Your task to perform on an android device: manage bookmarks in the chrome app Image 0: 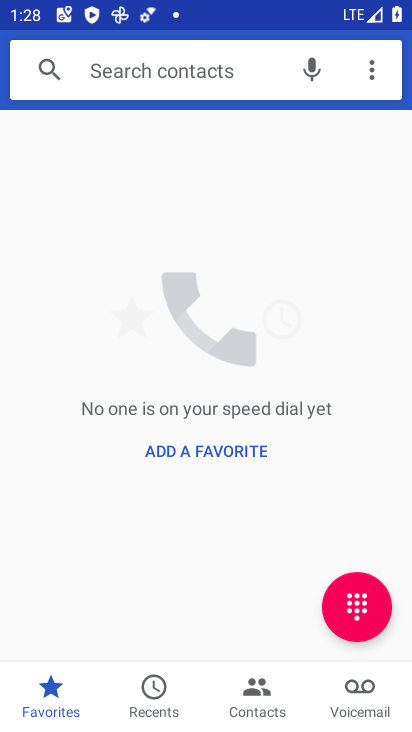
Step 0: press home button
Your task to perform on an android device: manage bookmarks in the chrome app Image 1: 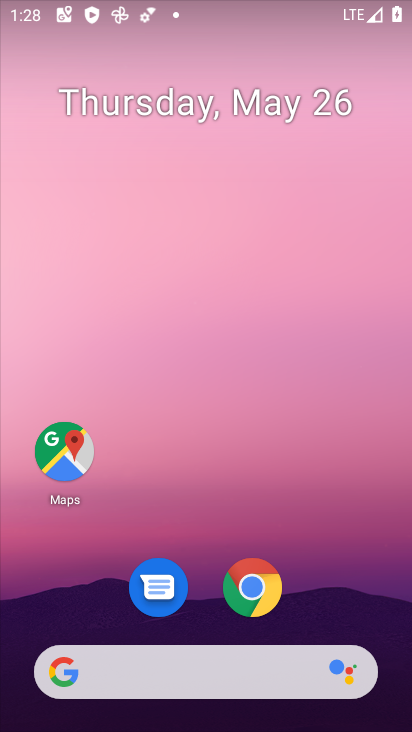
Step 1: drag from (367, 612) to (384, 181)
Your task to perform on an android device: manage bookmarks in the chrome app Image 2: 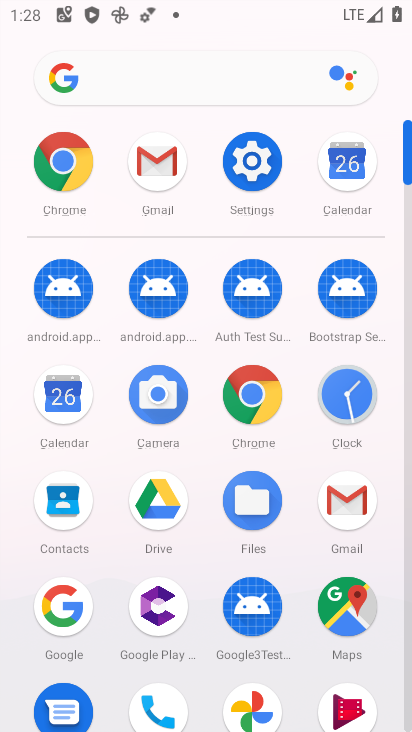
Step 2: click (254, 419)
Your task to perform on an android device: manage bookmarks in the chrome app Image 3: 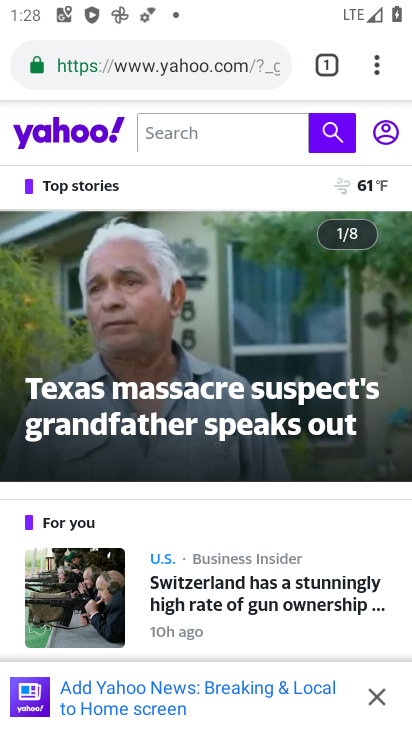
Step 3: click (376, 75)
Your task to perform on an android device: manage bookmarks in the chrome app Image 4: 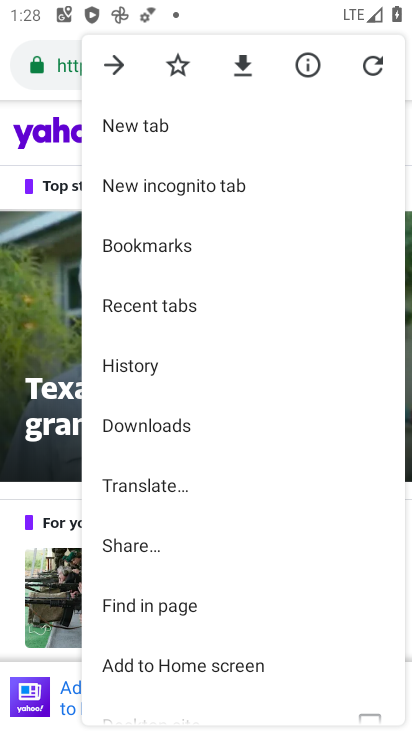
Step 4: drag from (340, 509) to (340, 405)
Your task to perform on an android device: manage bookmarks in the chrome app Image 5: 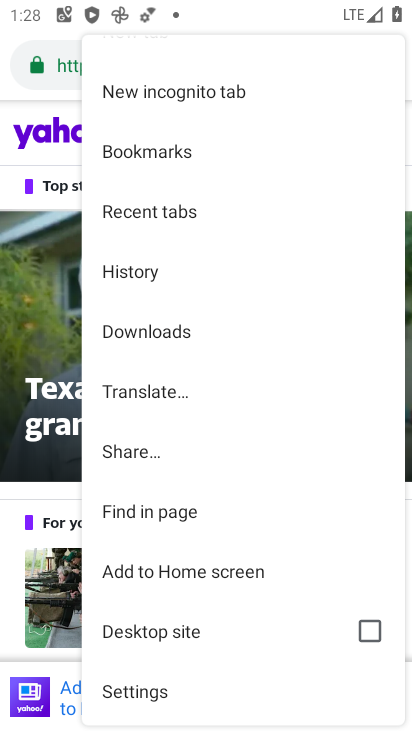
Step 5: drag from (322, 516) to (321, 347)
Your task to perform on an android device: manage bookmarks in the chrome app Image 6: 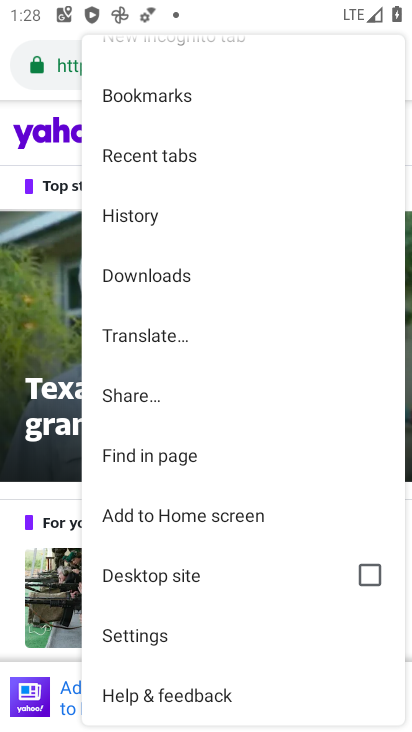
Step 6: drag from (295, 559) to (302, 353)
Your task to perform on an android device: manage bookmarks in the chrome app Image 7: 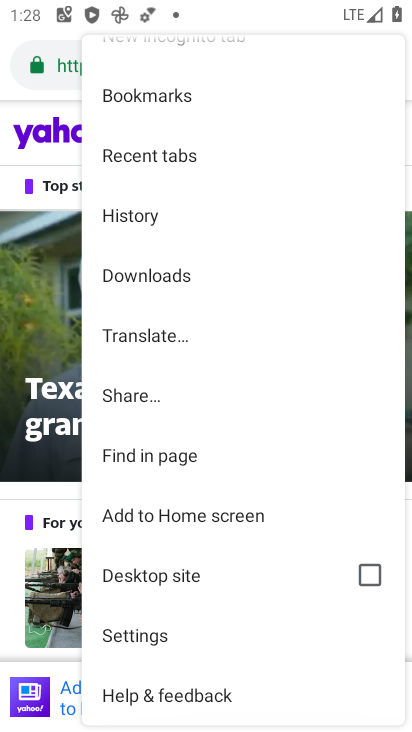
Step 7: drag from (308, 311) to (289, 481)
Your task to perform on an android device: manage bookmarks in the chrome app Image 8: 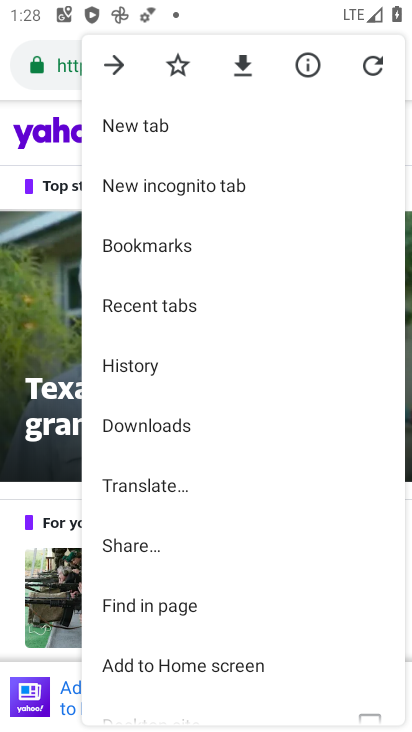
Step 8: drag from (295, 307) to (285, 469)
Your task to perform on an android device: manage bookmarks in the chrome app Image 9: 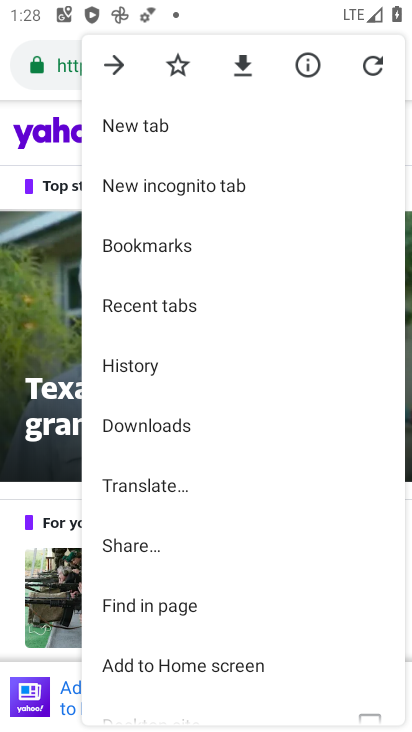
Step 9: click (185, 242)
Your task to perform on an android device: manage bookmarks in the chrome app Image 10: 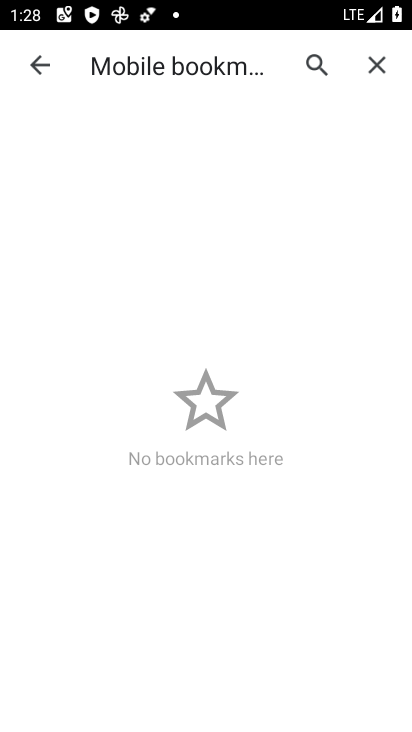
Step 10: task complete